Your task to perform on an android device: Turn on the flashlight Image 0: 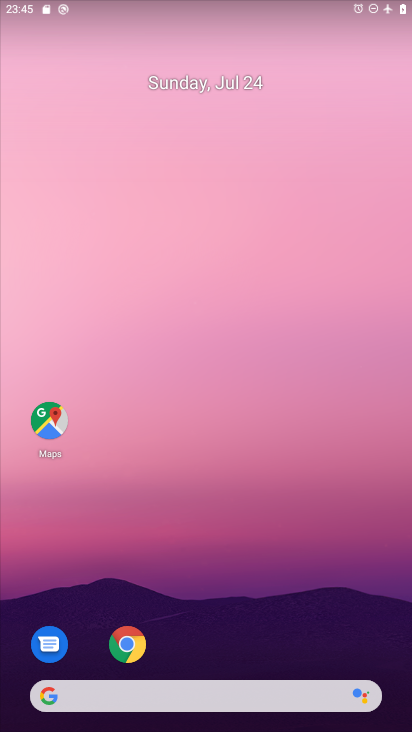
Step 0: drag from (212, 18) to (234, 335)
Your task to perform on an android device: Turn on the flashlight Image 1: 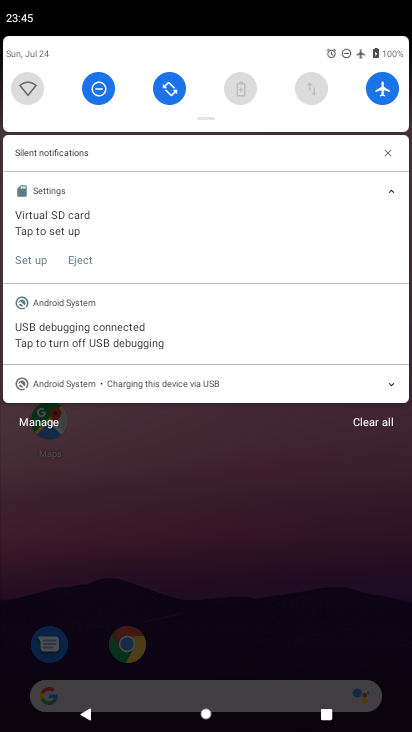
Step 1: drag from (202, 118) to (224, 405)
Your task to perform on an android device: Turn on the flashlight Image 2: 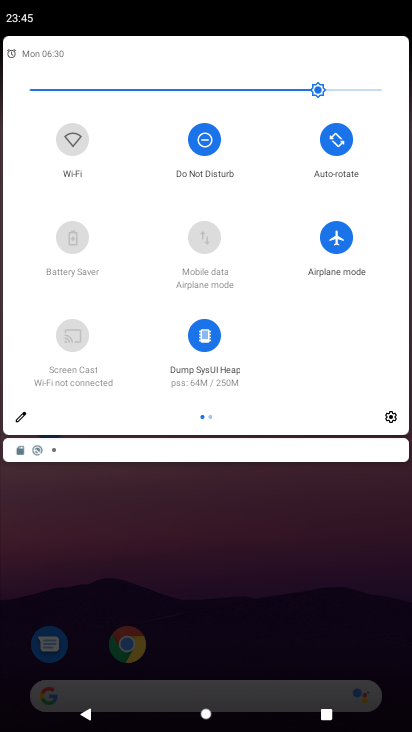
Step 2: click (18, 414)
Your task to perform on an android device: Turn on the flashlight Image 3: 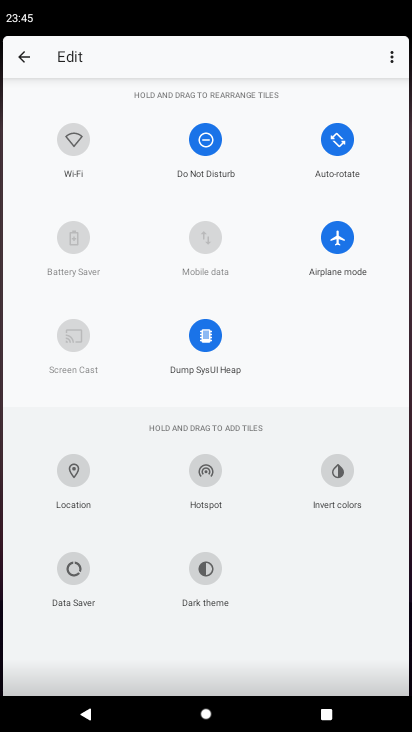
Step 3: task complete